Your task to perform on an android device: Open the Play Movies app and select the watchlist tab. Image 0: 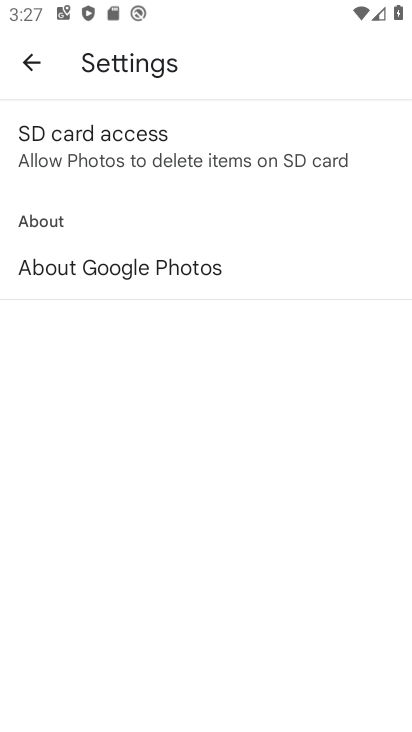
Step 0: press home button
Your task to perform on an android device: Open the Play Movies app and select the watchlist tab. Image 1: 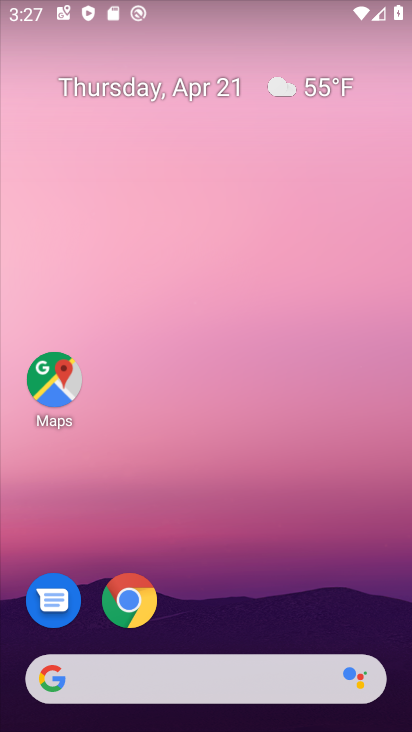
Step 1: drag from (199, 674) to (281, 240)
Your task to perform on an android device: Open the Play Movies app and select the watchlist tab. Image 2: 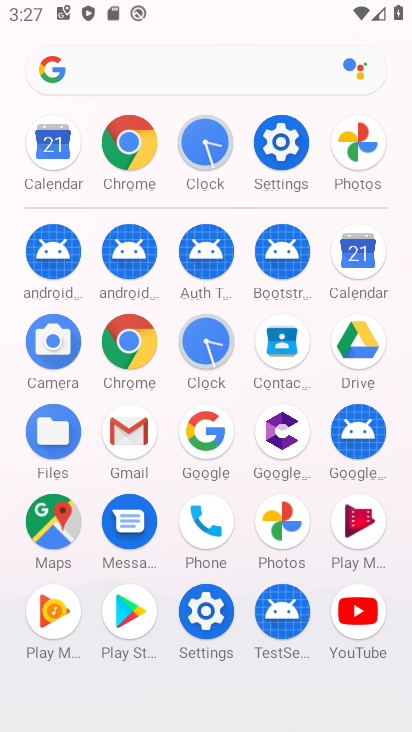
Step 2: click (354, 525)
Your task to perform on an android device: Open the Play Movies app and select the watchlist tab. Image 3: 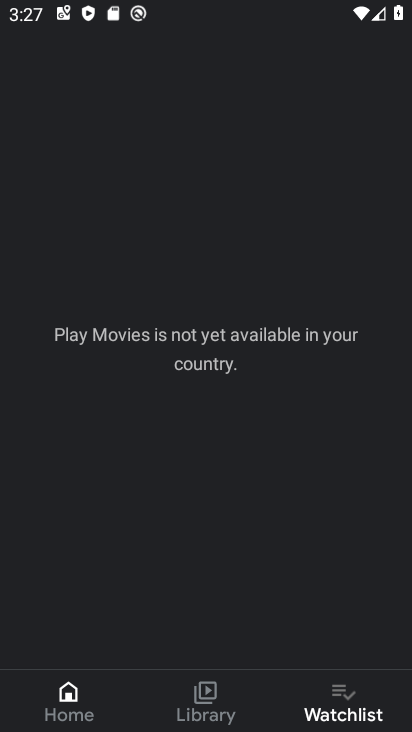
Step 3: task complete